Your task to perform on an android device: remove spam from my inbox in the gmail app Image 0: 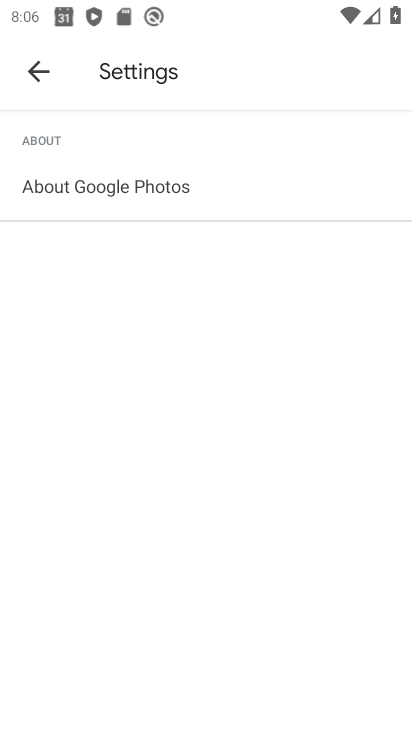
Step 0: press home button
Your task to perform on an android device: remove spam from my inbox in the gmail app Image 1: 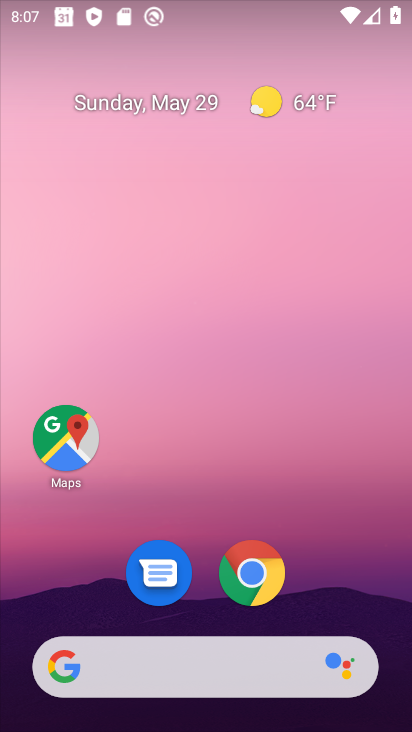
Step 1: drag from (78, 622) to (236, 186)
Your task to perform on an android device: remove spam from my inbox in the gmail app Image 2: 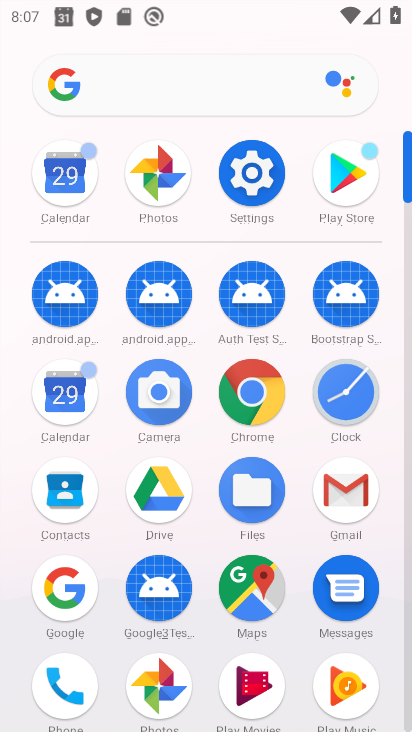
Step 2: drag from (151, 632) to (256, 285)
Your task to perform on an android device: remove spam from my inbox in the gmail app Image 3: 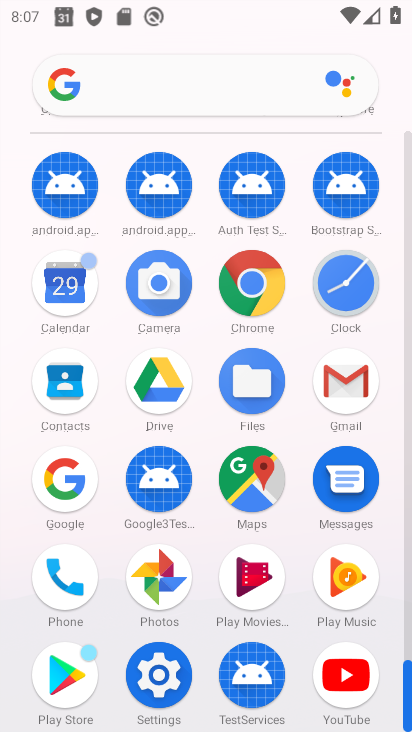
Step 3: click (365, 384)
Your task to perform on an android device: remove spam from my inbox in the gmail app Image 4: 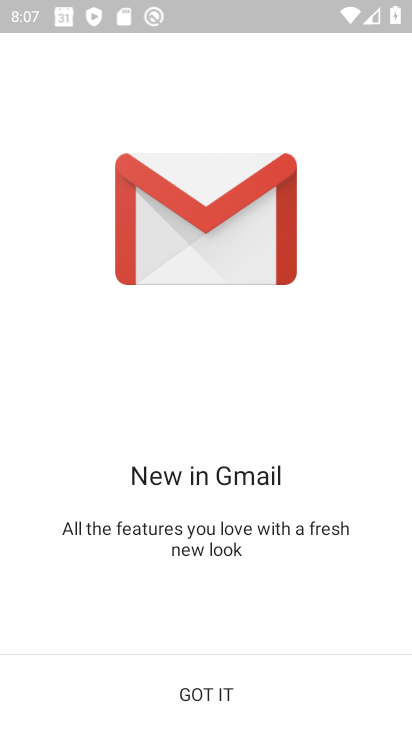
Step 4: click (172, 672)
Your task to perform on an android device: remove spam from my inbox in the gmail app Image 5: 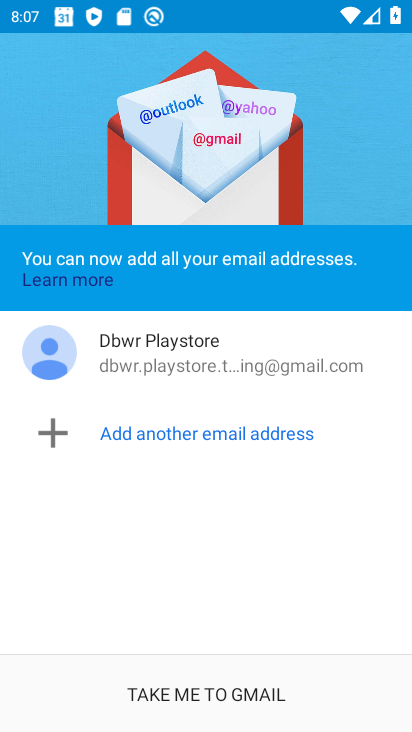
Step 5: click (202, 708)
Your task to perform on an android device: remove spam from my inbox in the gmail app Image 6: 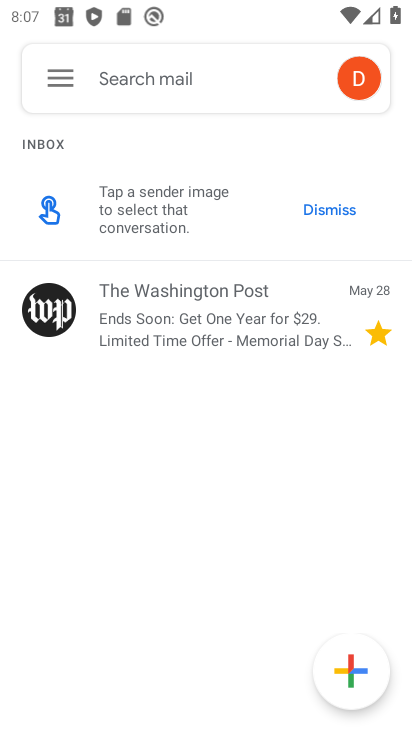
Step 6: click (53, 81)
Your task to perform on an android device: remove spam from my inbox in the gmail app Image 7: 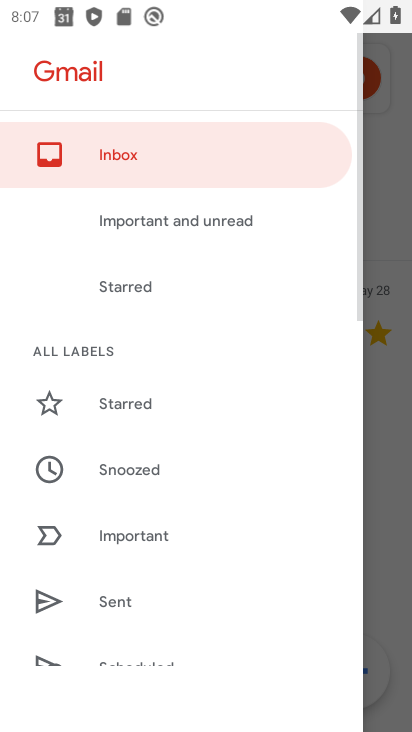
Step 7: drag from (130, 598) to (228, 243)
Your task to perform on an android device: remove spam from my inbox in the gmail app Image 8: 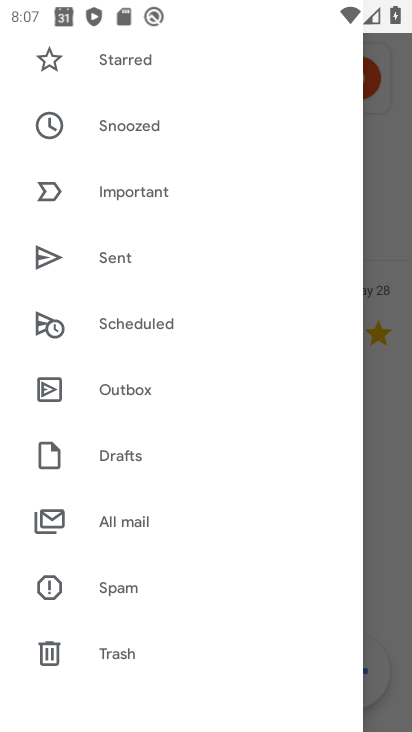
Step 8: click (147, 598)
Your task to perform on an android device: remove spam from my inbox in the gmail app Image 9: 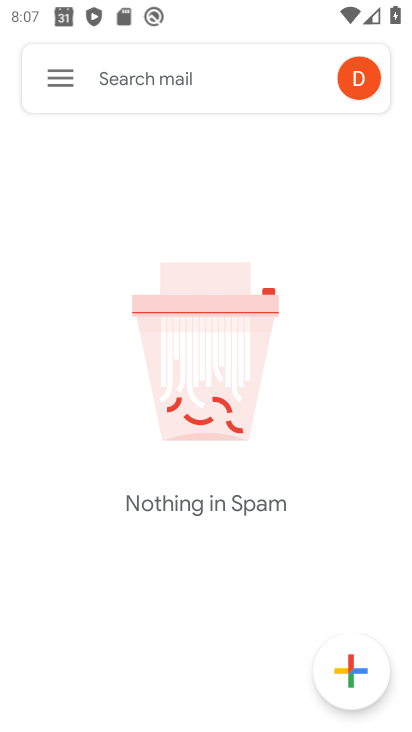
Step 9: task complete